Your task to perform on an android device: turn smart compose on in the gmail app Image 0: 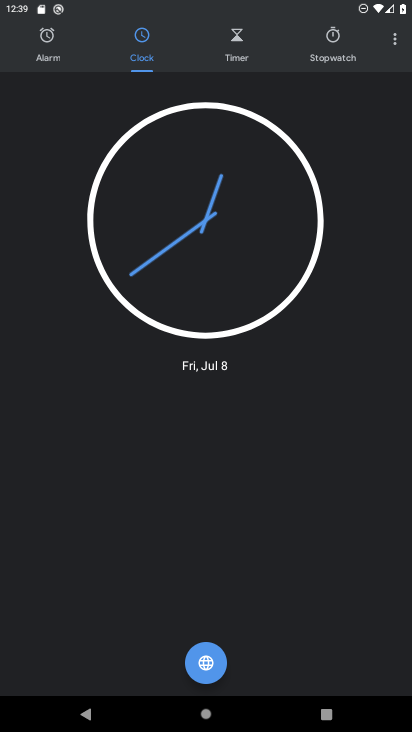
Step 0: press home button
Your task to perform on an android device: turn smart compose on in the gmail app Image 1: 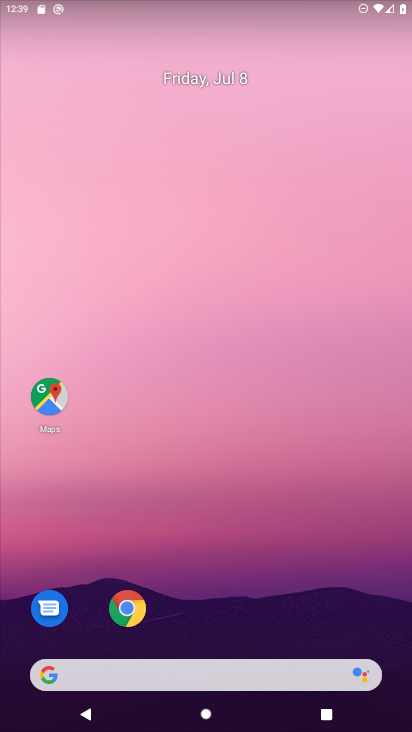
Step 1: drag from (258, 708) to (247, 628)
Your task to perform on an android device: turn smart compose on in the gmail app Image 2: 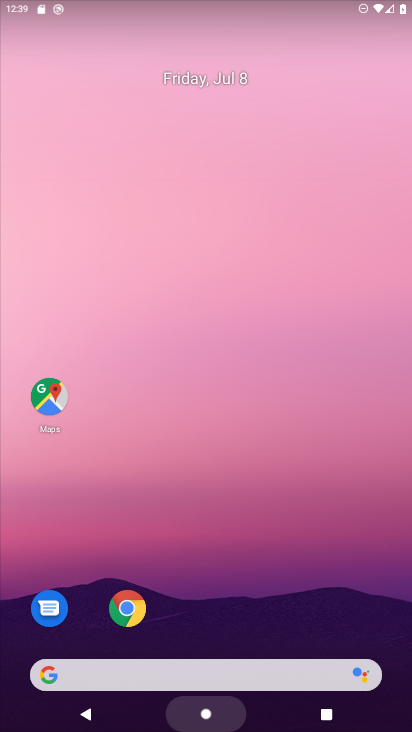
Step 2: drag from (231, 214) to (225, 178)
Your task to perform on an android device: turn smart compose on in the gmail app Image 3: 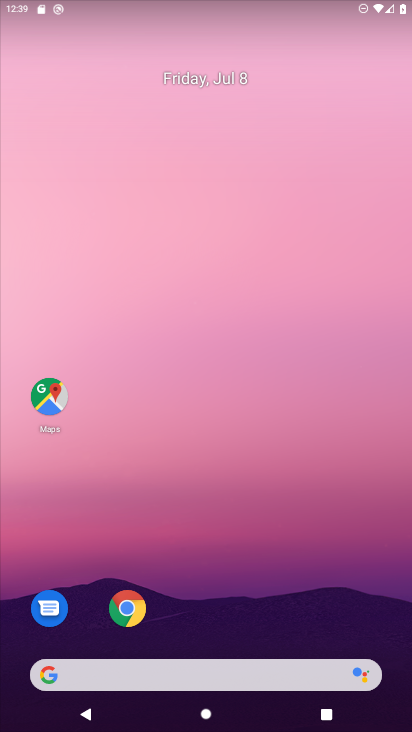
Step 3: drag from (256, 724) to (260, 586)
Your task to perform on an android device: turn smart compose on in the gmail app Image 4: 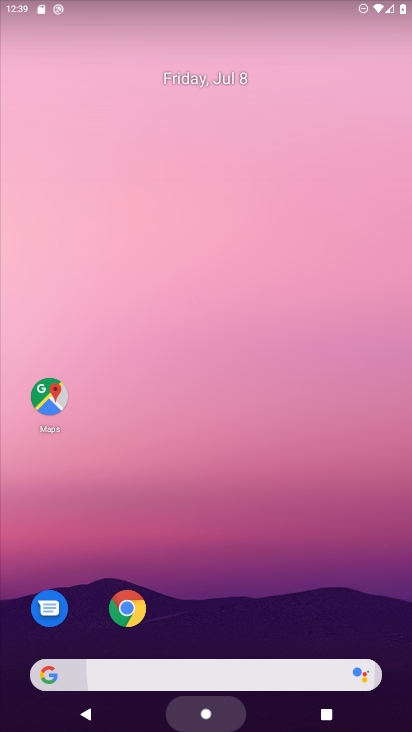
Step 4: click (249, 64)
Your task to perform on an android device: turn smart compose on in the gmail app Image 5: 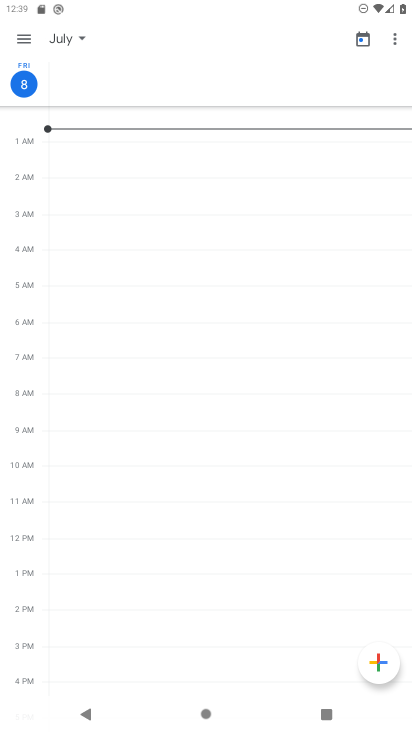
Step 5: press home button
Your task to perform on an android device: turn smart compose on in the gmail app Image 6: 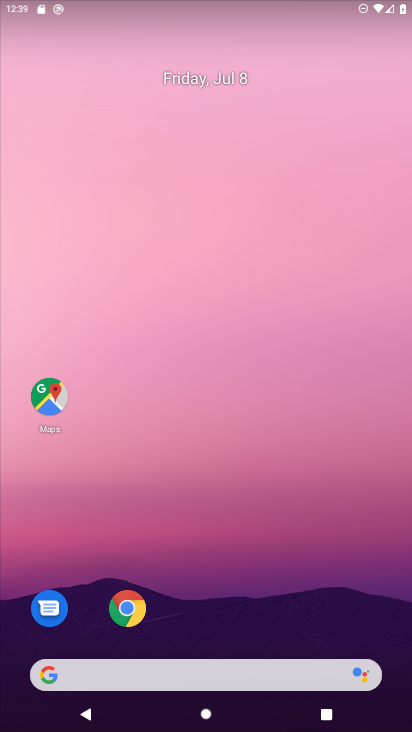
Step 6: drag from (259, 703) to (257, 643)
Your task to perform on an android device: turn smart compose on in the gmail app Image 7: 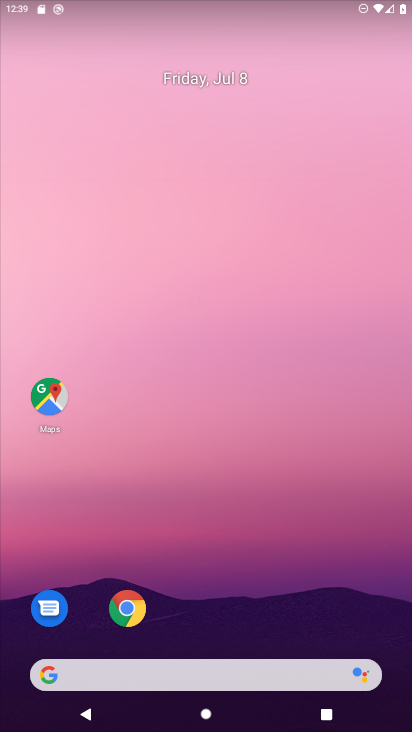
Step 7: drag from (244, 269) to (244, 146)
Your task to perform on an android device: turn smart compose on in the gmail app Image 8: 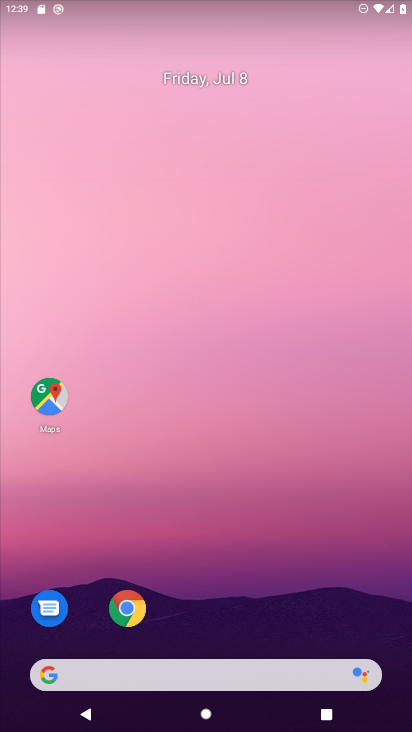
Step 8: click (236, 723)
Your task to perform on an android device: turn smart compose on in the gmail app Image 9: 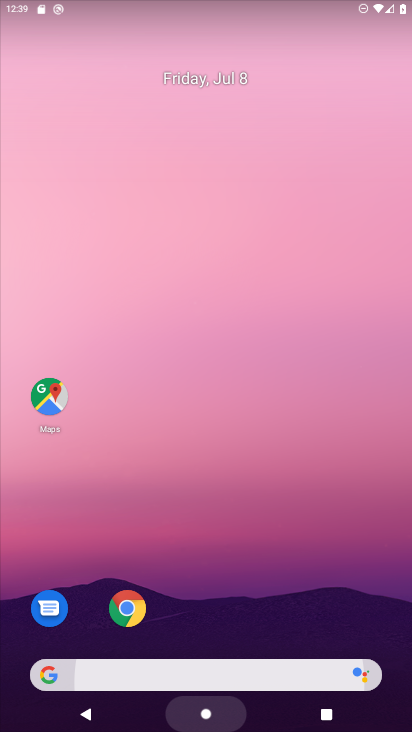
Step 9: click (223, 108)
Your task to perform on an android device: turn smart compose on in the gmail app Image 10: 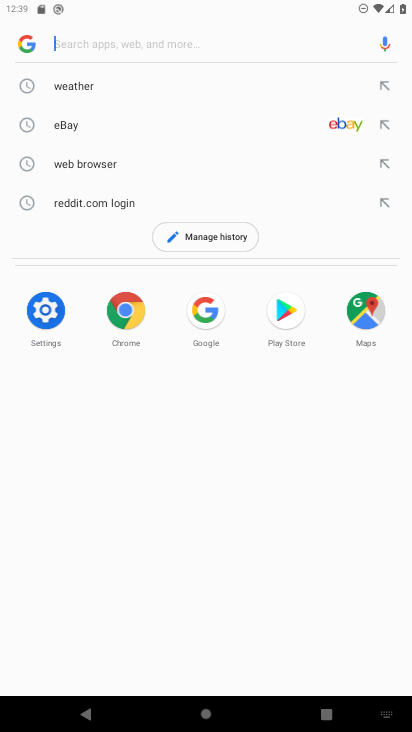
Step 10: press home button
Your task to perform on an android device: turn smart compose on in the gmail app Image 11: 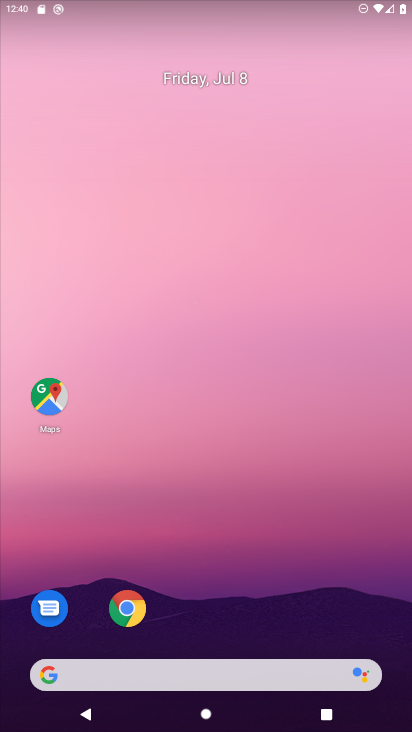
Step 11: drag from (264, 724) to (226, 107)
Your task to perform on an android device: turn smart compose on in the gmail app Image 12: 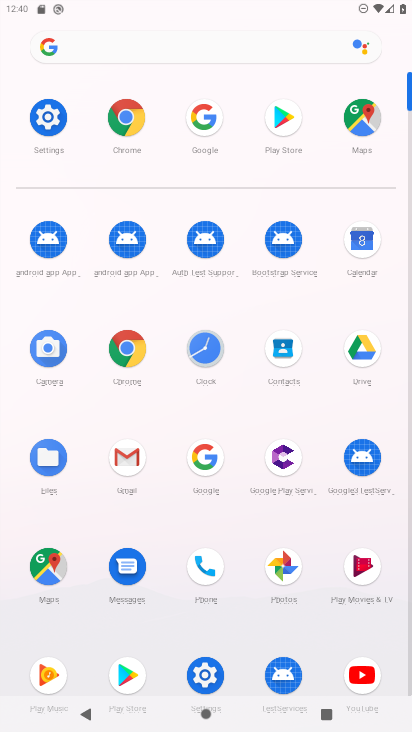
Step 12: click (124, 459)
Your task to perform on an android device: turn smart compose on in the gmail app Image 13: 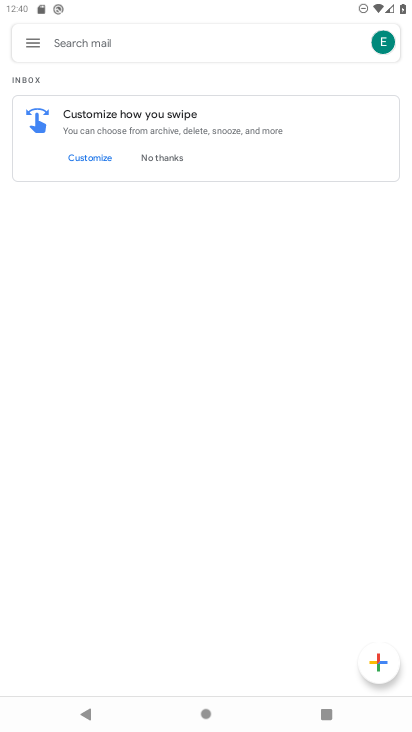
Step 13: click (29, 39)
Your task to perform on an android device: turn smart compose on in the gmail app Image 14: 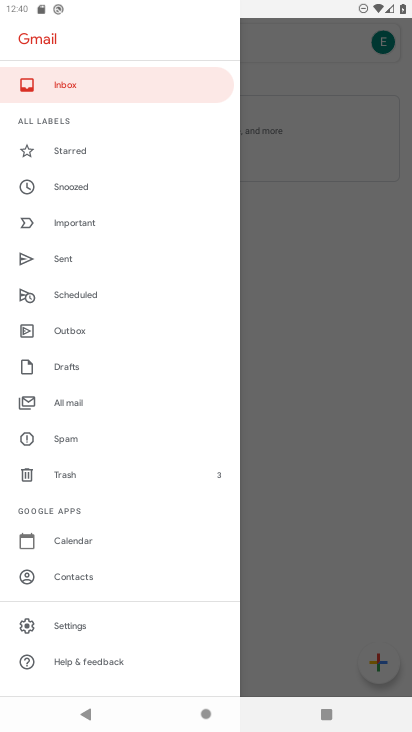
Step 14: click (72, 625)
Your task to perform on an android device: turn smart compose on in the gmail app Image 15: 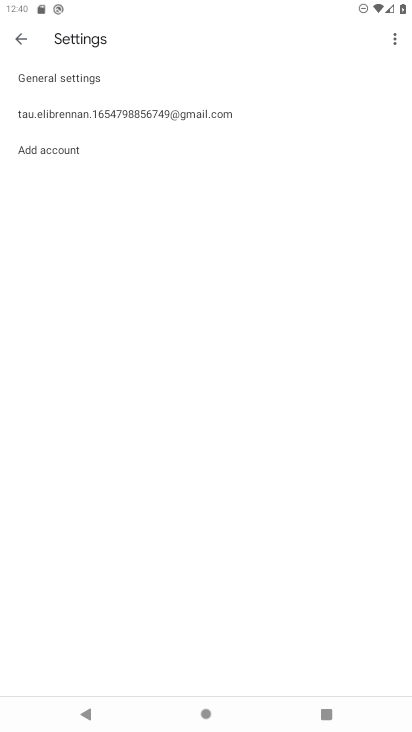
Step 15: click (109, 112)
Your task to perform on an android device: turn smart compose on in the gmail app Image 16: 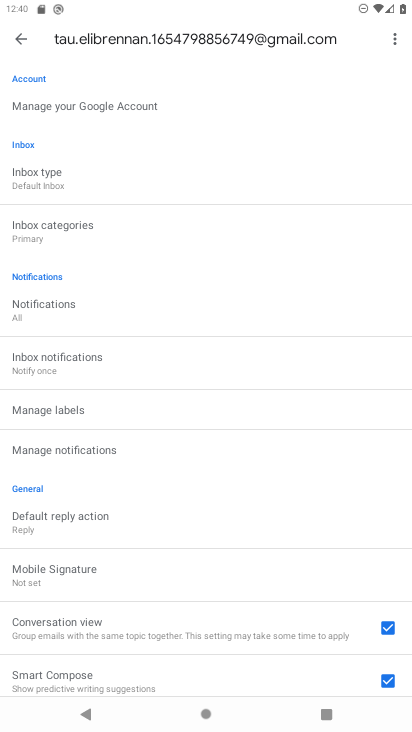
Step 16: task complete